Your task to perform on an android device: show emergency info Image 0: 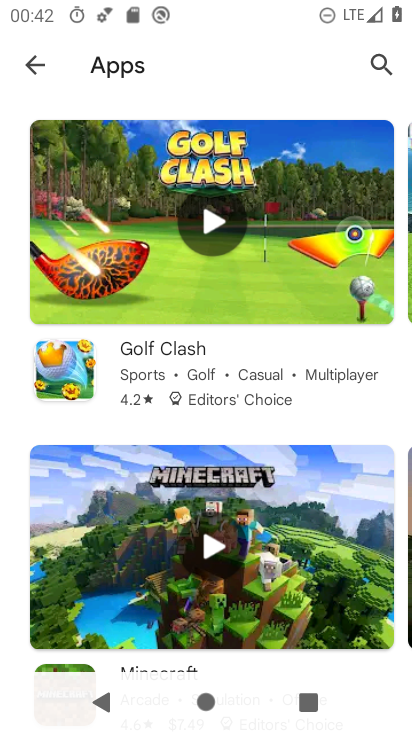
Step 0: drag from (319, 364) to (381, 71)
Your task to perform on an android device: show emergency info Image 1: 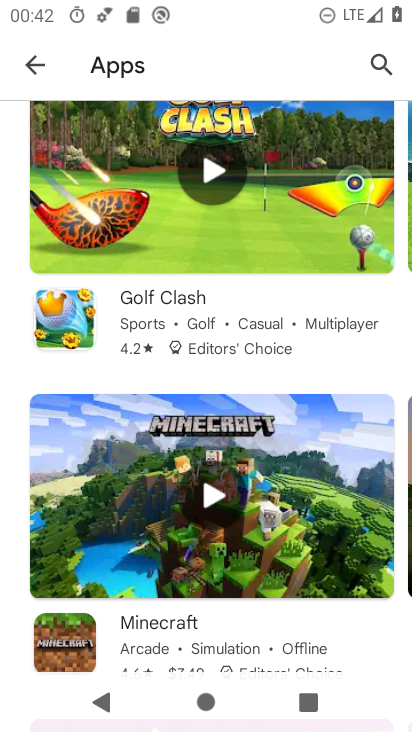
Step 1: press home button
Your task to perform on an android device: show emergency info Image 2: 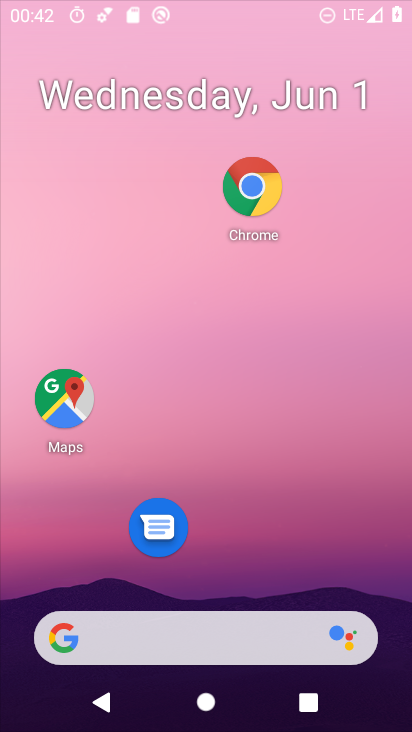
Step 2: drag from (243, 580) to (314, 116)
Your task to perform on an android device: show emergency info Image 3: 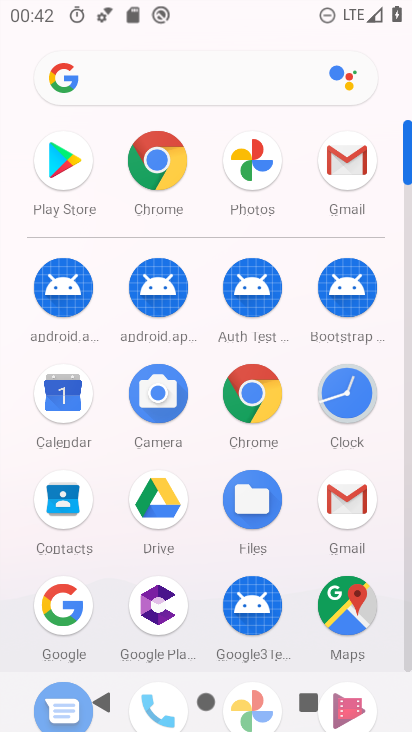
Step 3: drag from (196, 594) to (203, 97)
Your task to perform on an android device: show emergency info Image 4: 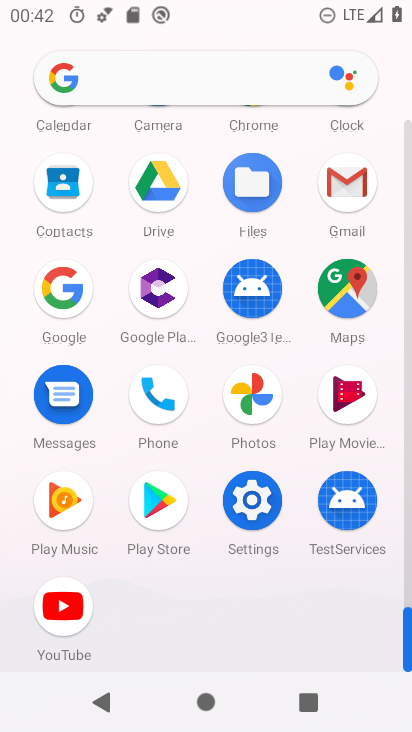
Step 4: click (246, 483)
Your task to perform on an android device: show emergency info Image 5: 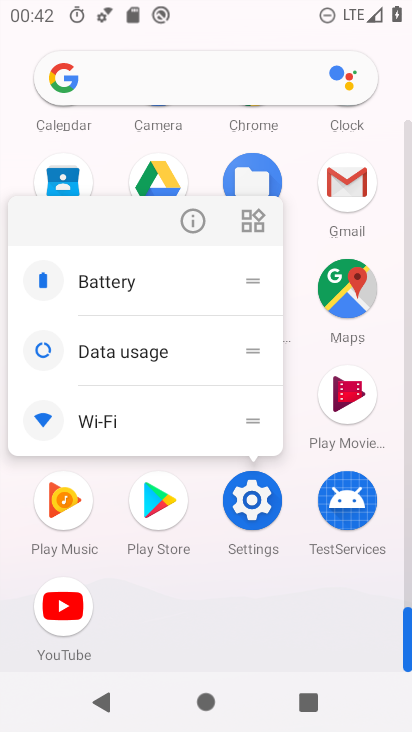
Step 5: click (206, 224)
Your task to perform on an android device: show emergency info Image 6: 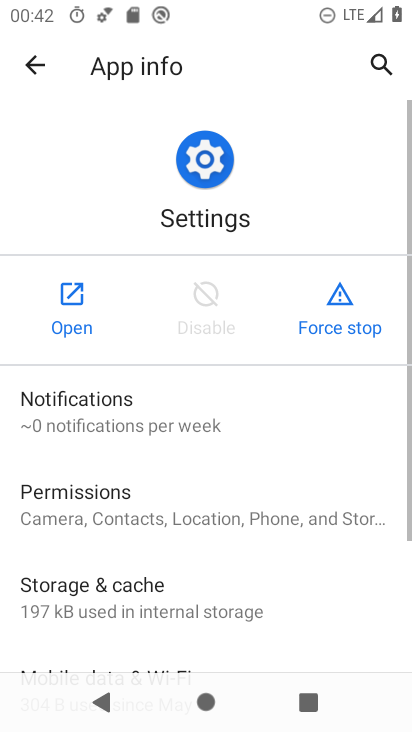
Step 6: click (57, 299)
Your task to perform on an android device: show emergency info Image 7: 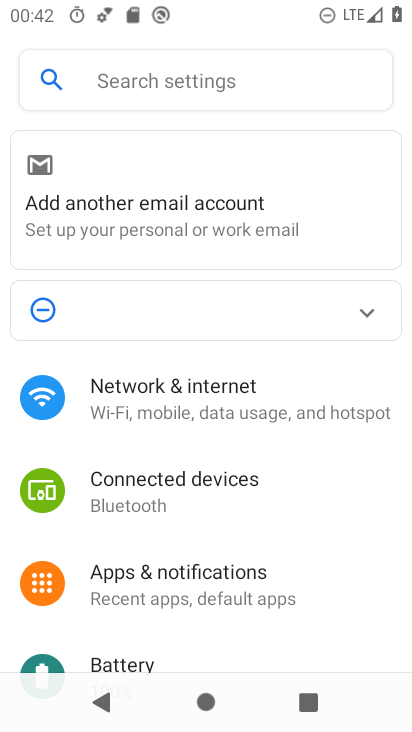
Step 7: drag from (258, 327) to (261, 189)
Your task to perform on an android device: show emergency info Image 8: 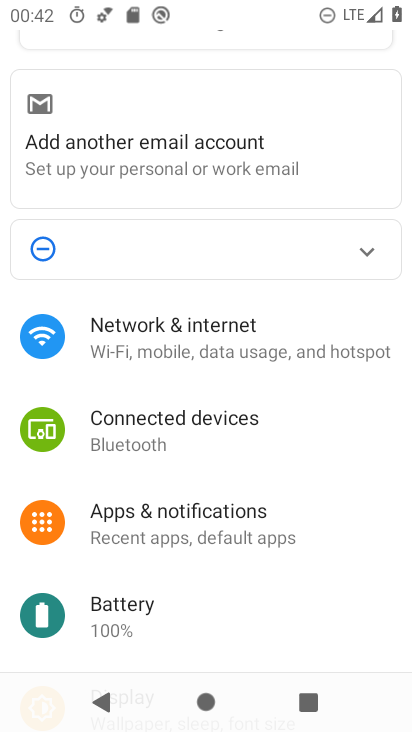
Step 8: drag from (218, 541) to (259, 110)
Your task to perform on an android device: show emergency info Image 9: 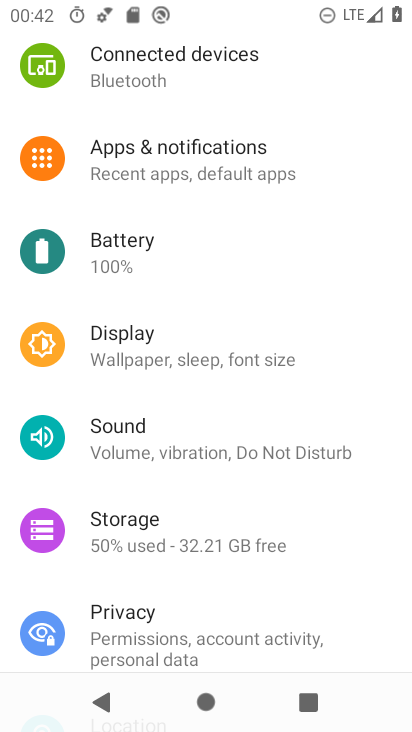
Step 9: drag from (178, 533) to (260, 26)
Your task to perform on an android device: show emergency info Image 10: 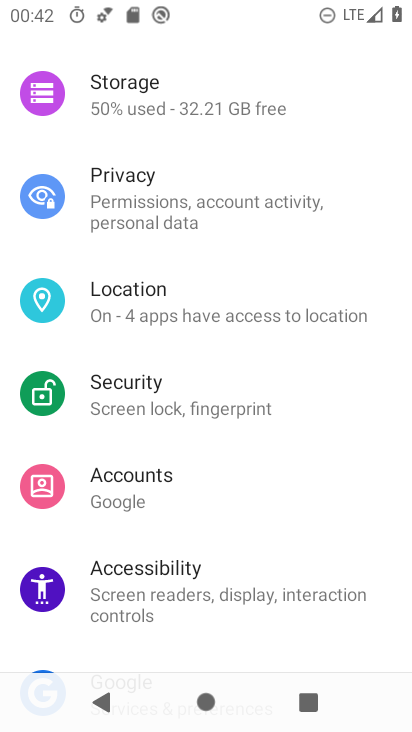
Step 10: drag from (161, 593) to (205, 127)
Your task to perform on an android device: show emergency info Image 11: 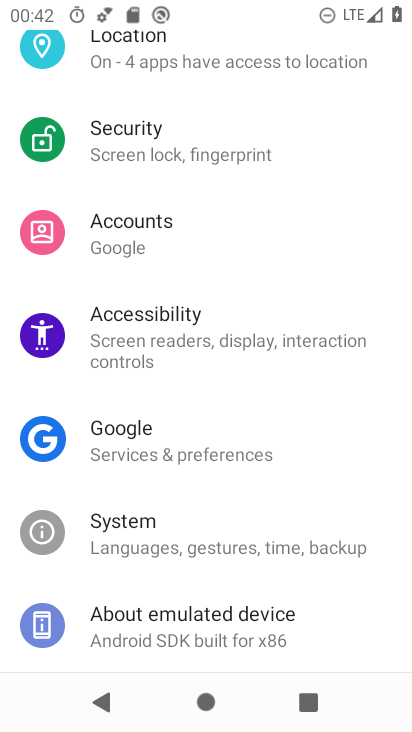
Step 11: click (179, 605)
Your task to perform on an android device: show emergency info Image 12: 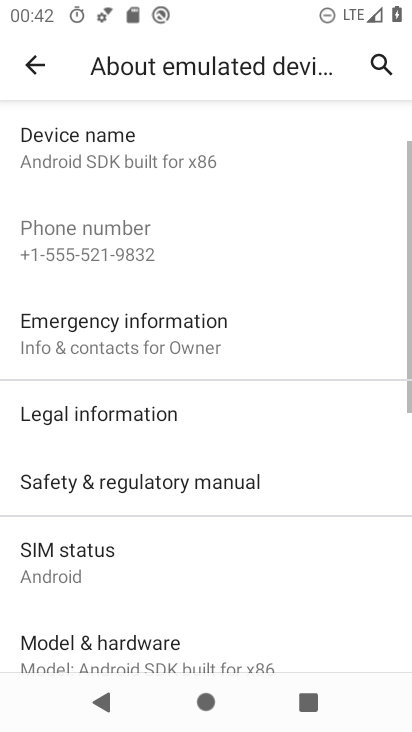
Step 12: drag from (175, 578) to (166, 211)
Your task to perform on an android device: show emergency info Image 13: 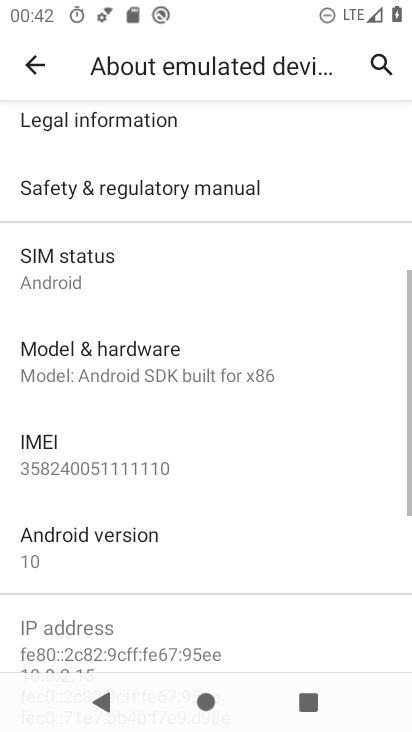
Step 13: drag from (144, 174) to (157, 705)
Your task to perform on an android device: show emergency info Image 14: 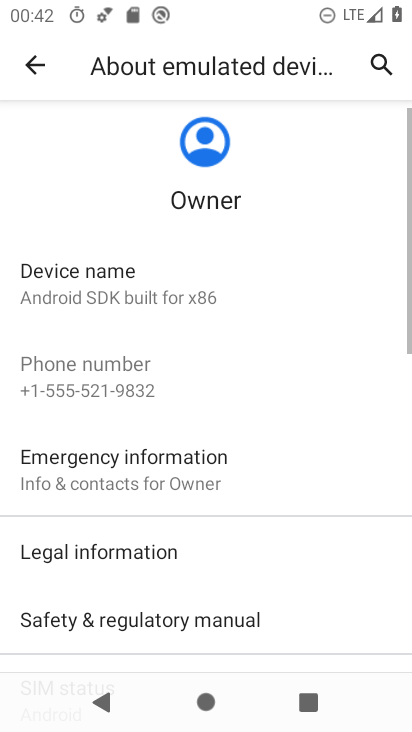
Step 14: click (146, 466)
Your task to perform on an android device: show emergency info Image 15: 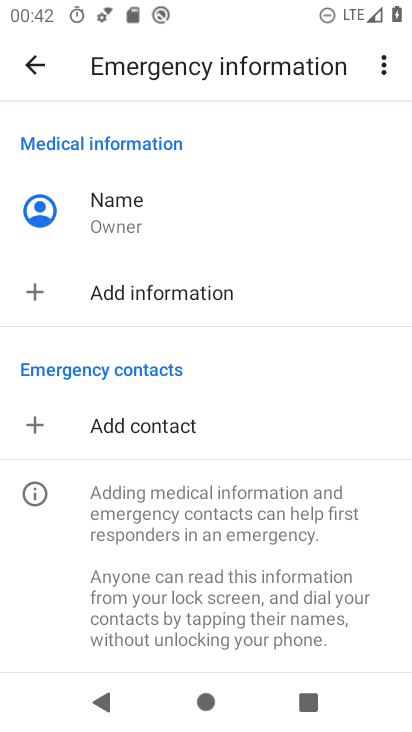
Step 15: task complete